Your task to perform on an android device: turn off picture-in-picture Image 0: 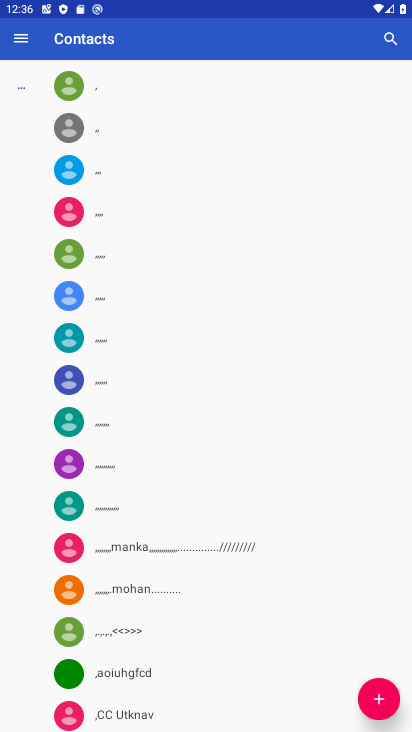
Step 0: press home button
Your task to perform on an android device: turn off picture-in-picture Image 1: 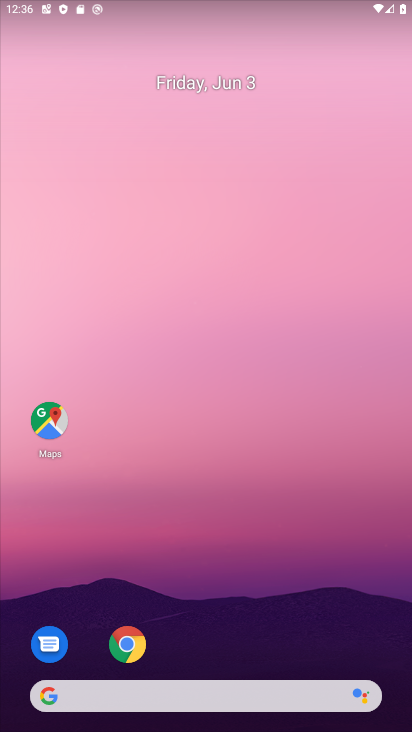
Step 1: drag from (190, 729) to (213, 72)
Your task to perform on an android device: turn off picture-in-picture Image 2: 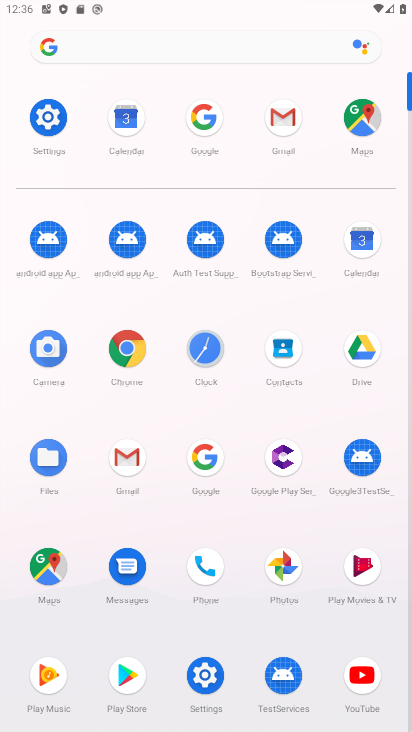
Step 2: click (52, 111)
Your task to perform on an android device: turn off picture-in-picture Image 3: 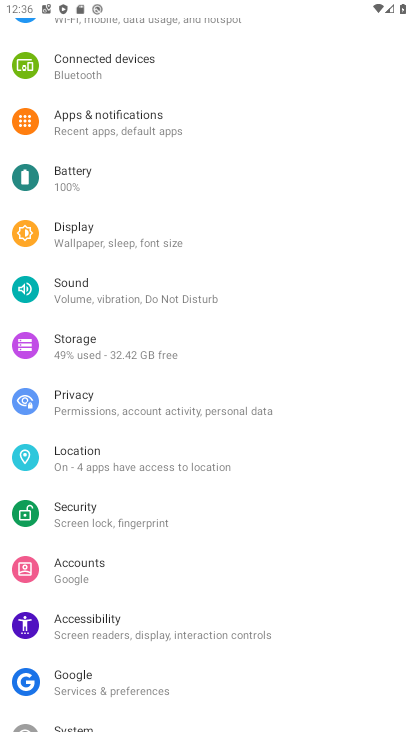
Step 3: click (86, 122)
Your task to perform on an android device: turn off picture-in-picture Image 4: 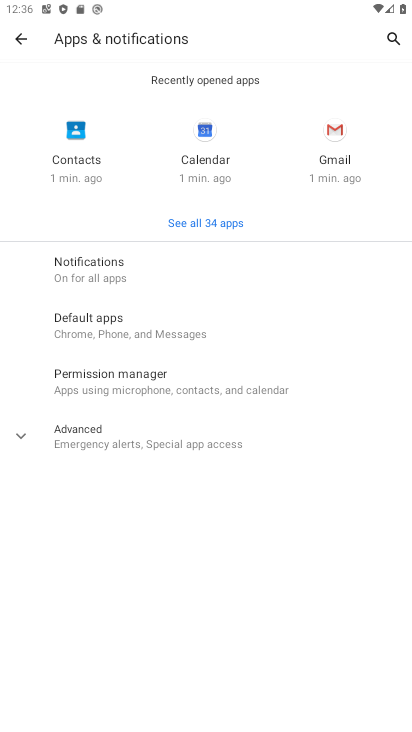
Step 4: click (76, 432)
Your task to perform on an android device: turn off picture-in-picture Image 5: 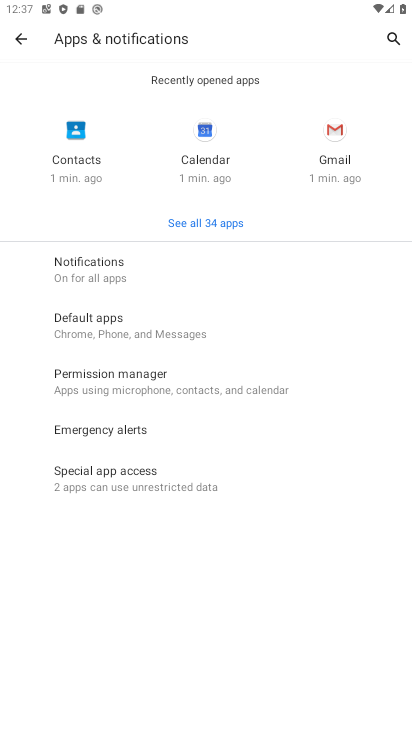
Step 5: click (82, 477)
Your task to perform on an android device: turn off picture-in-picture Image 6: 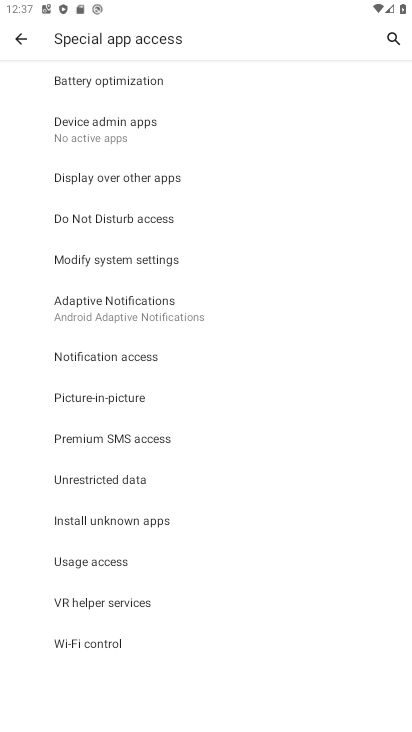
Step 6: click (77, 393)
Your task to perform on an android device: turn off picture-in-picture Image 7: 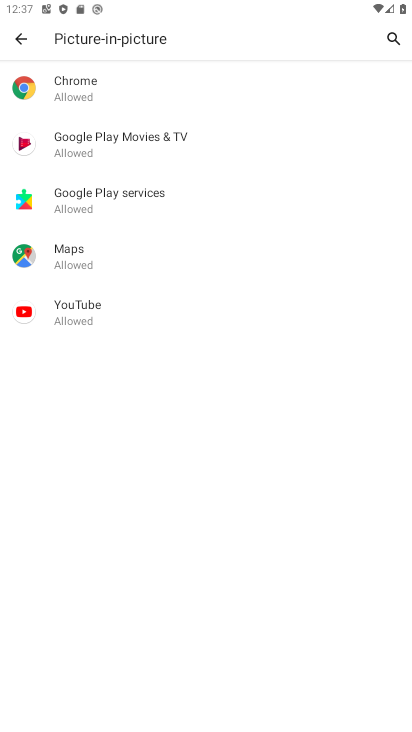
Step 7: click (75, 302)
Your task to perform on an android device: turn off picture-in-picture Image 8: 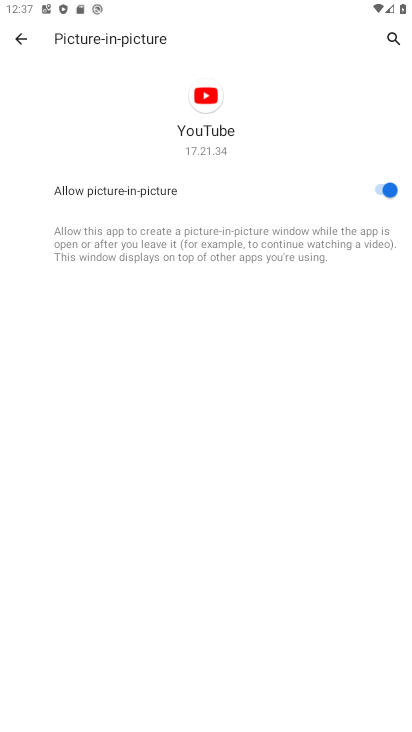
Step 8: click (375, 187)
Your task to perform on an android device: turn off picture-in-picture Image 9: 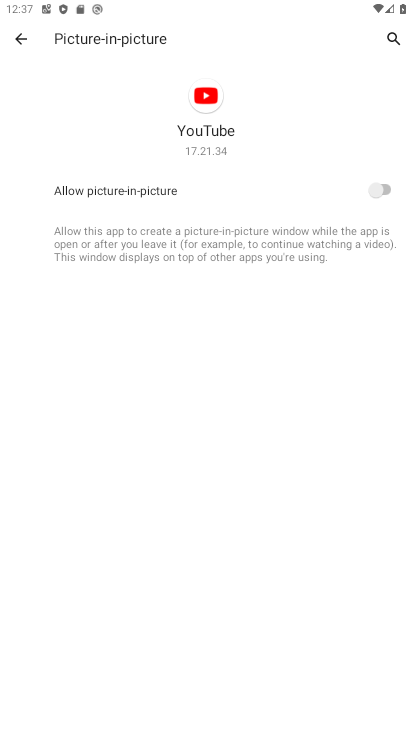
Step 9: task complete